Your task to perform on an android device: Open maps Image 0: 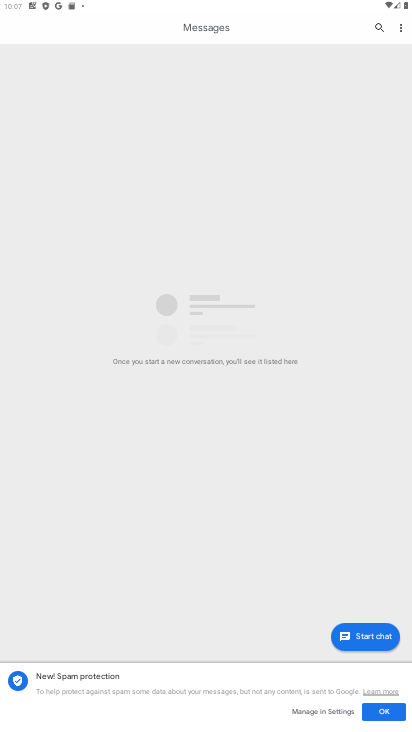
Step 0: press home button
Your task to perform on an android device: Open maps Image 1: 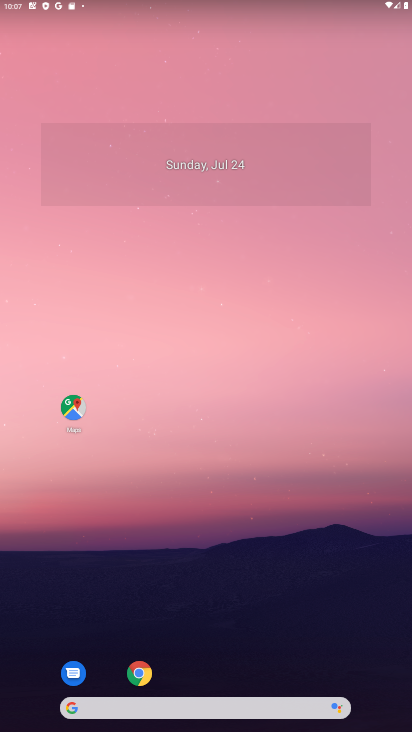
Step 1: click (62, 416)
Your task to perform on an android device: Open maps Image 2: 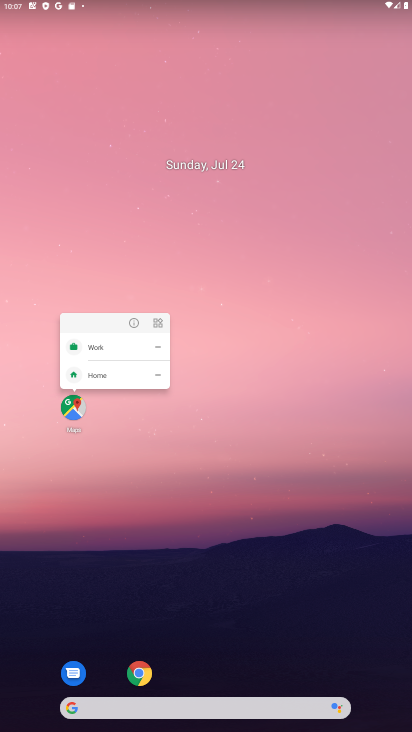
Step 2: click (80, 418)
Your task to perform on an android device: Open maps Image 3: 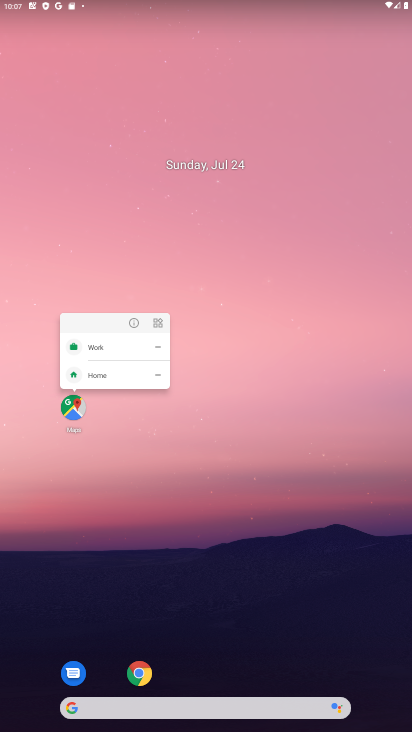
Step 3: click (58, 406)
Your task to perform on an android device: Open maps Image 4: 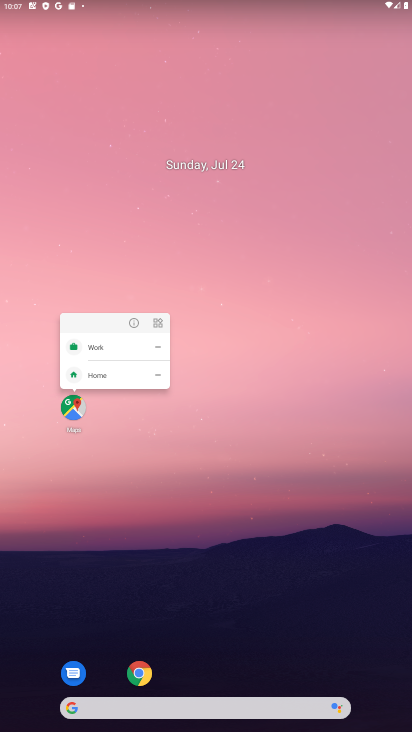
Step 4: click (67, 415)
Your task to perform on an android device: Open maps Image 5: 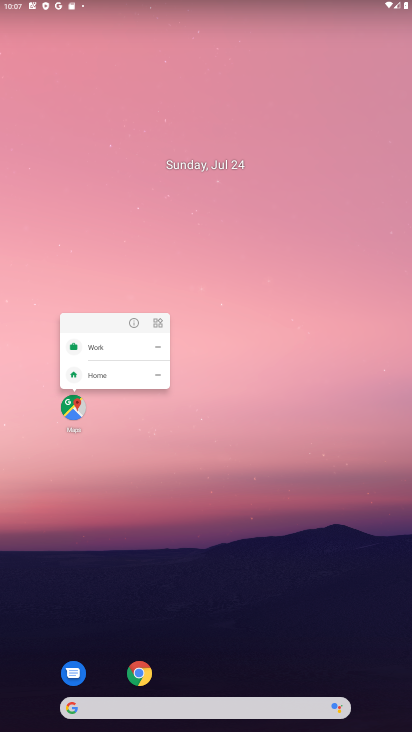
Step 5: click (67, 415)
Your task to perform on an android device: Open maps Image 6: 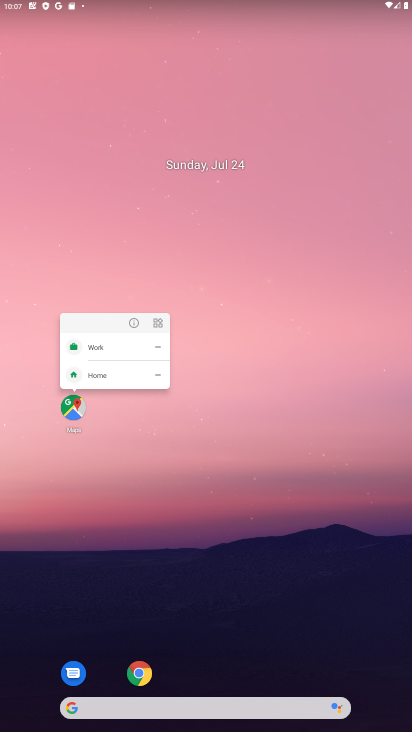
Step 6: task complete